Your task to perform on an android device: See recent photos Image 0: 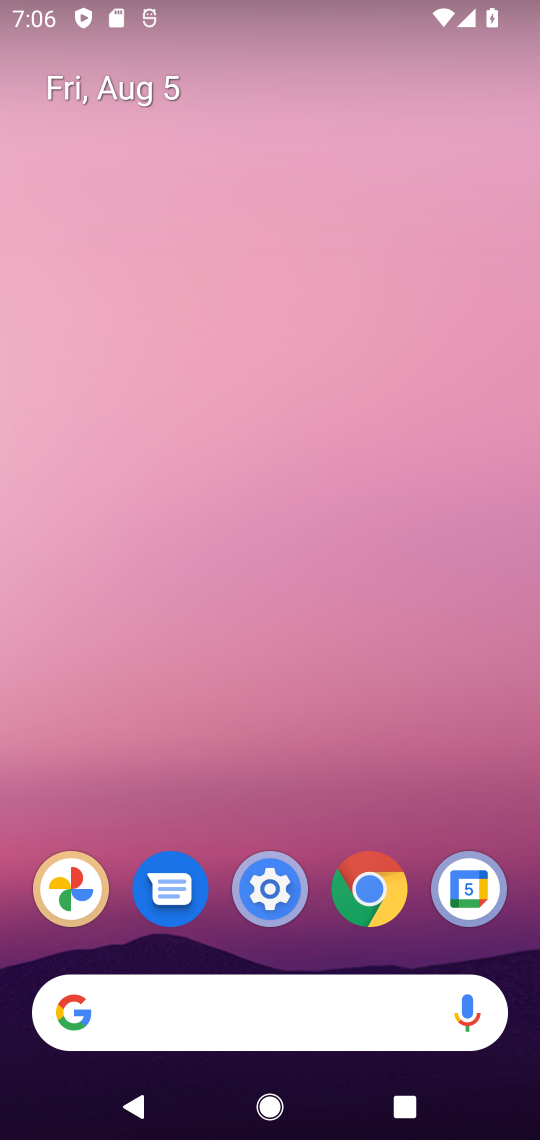
Step 0: click (70, 892)
Your task to perform on an android device: See recent photos Image 1: 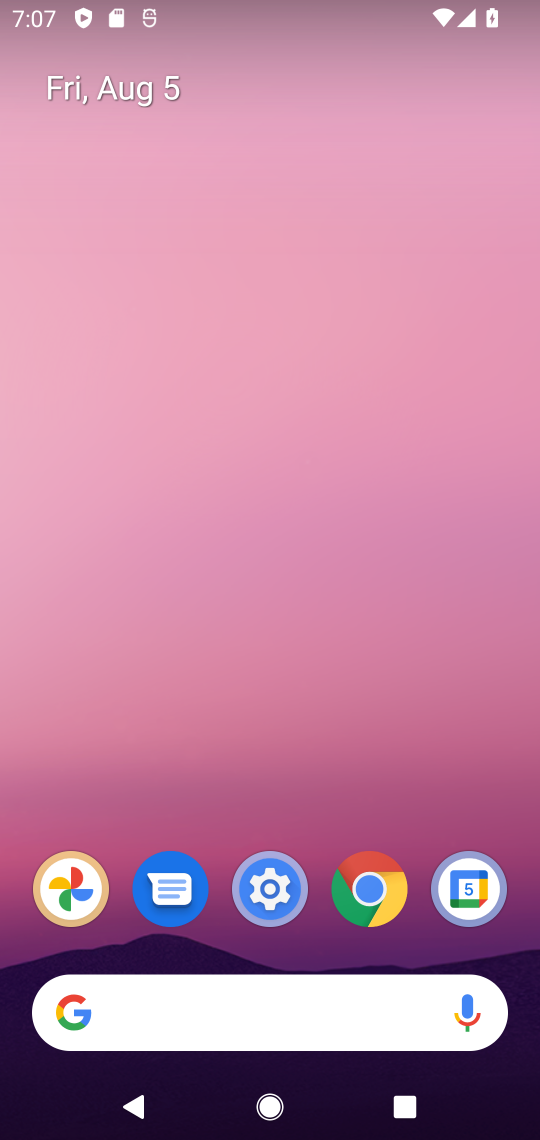
Step 1: drag from (213, 992) to (128, 394)
Your task to perform on an android device: See recent photos Image 2: 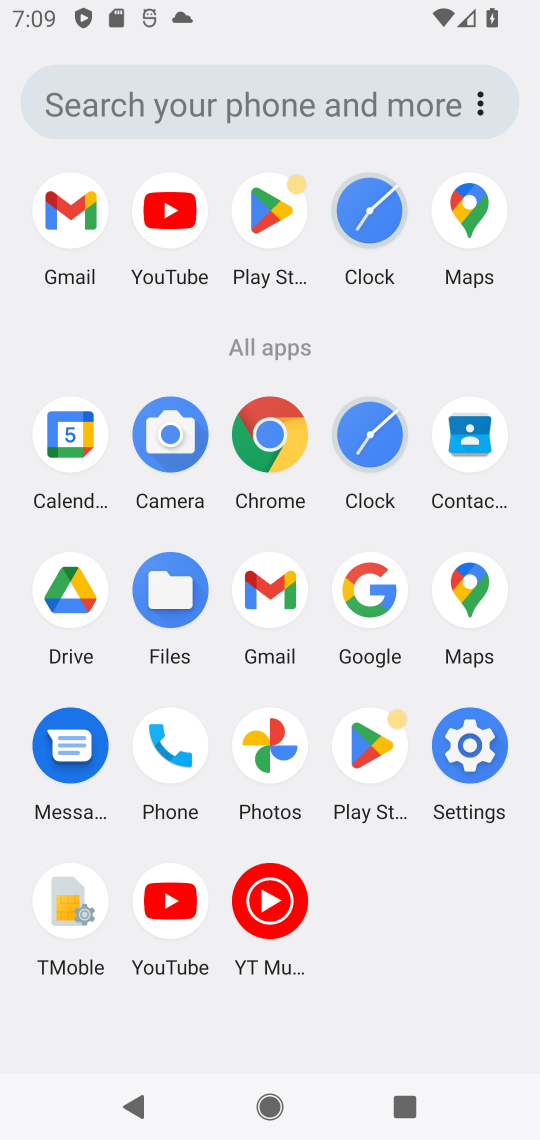
Step 2: click (257, 740)
Your task to perform on an android device: See recent photos Image 3: 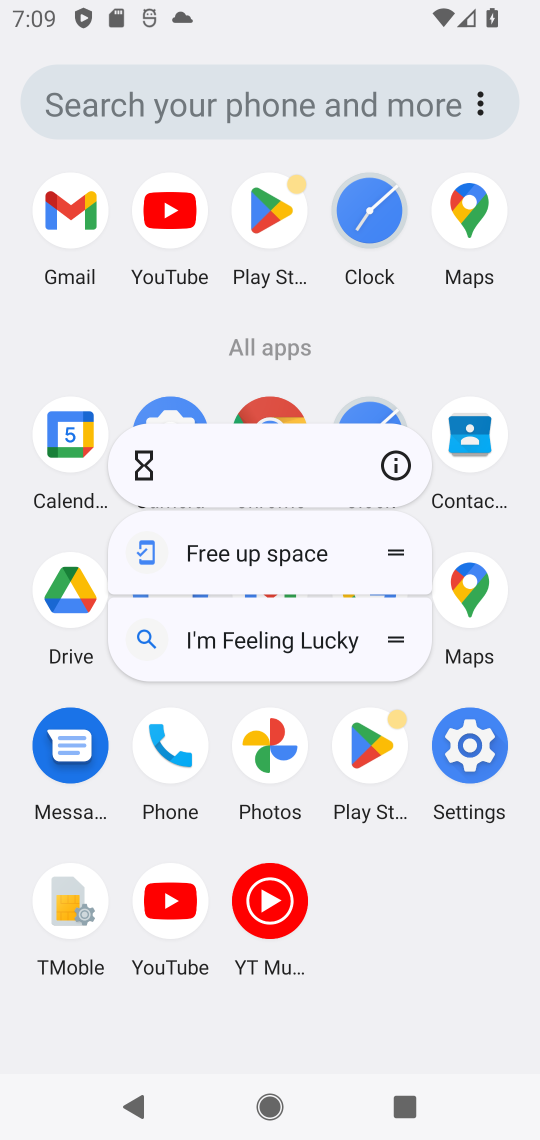
Step 3: click (267, 750)
Your task to perform on an android device: See recent photos Image 4: 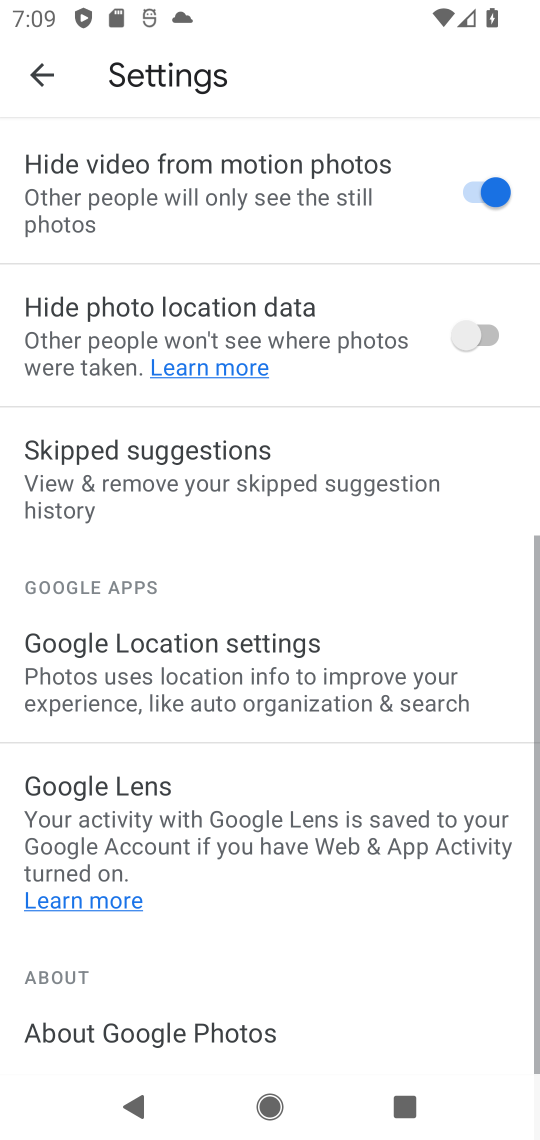
Step 4: click (267, 750)
Your task to perform on an android device: See recent photos Image 5: 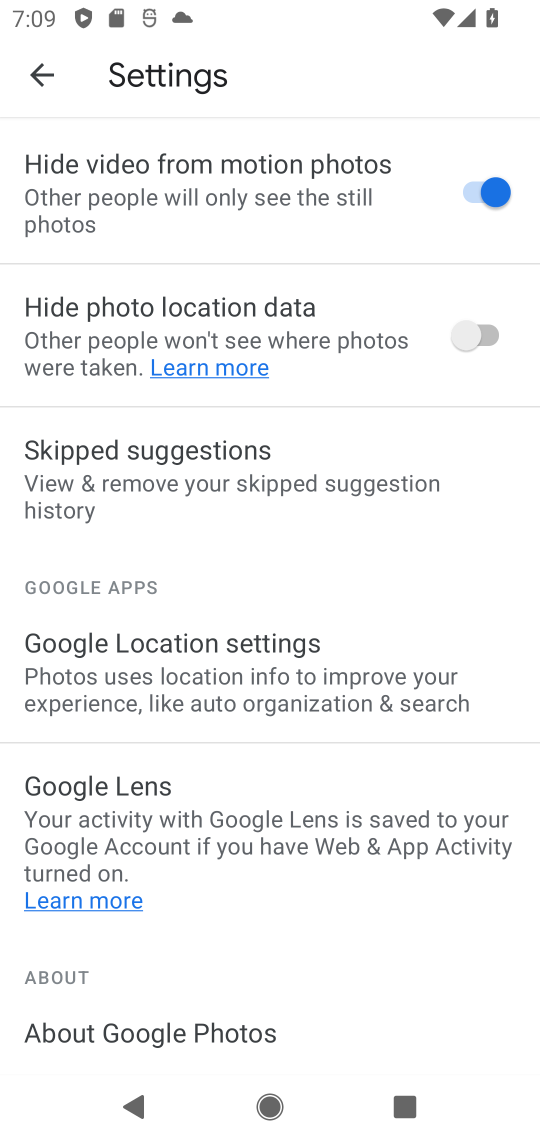
Step 5: click (52, 71)
Your task to perform on an android device: See recent photos Image 6: 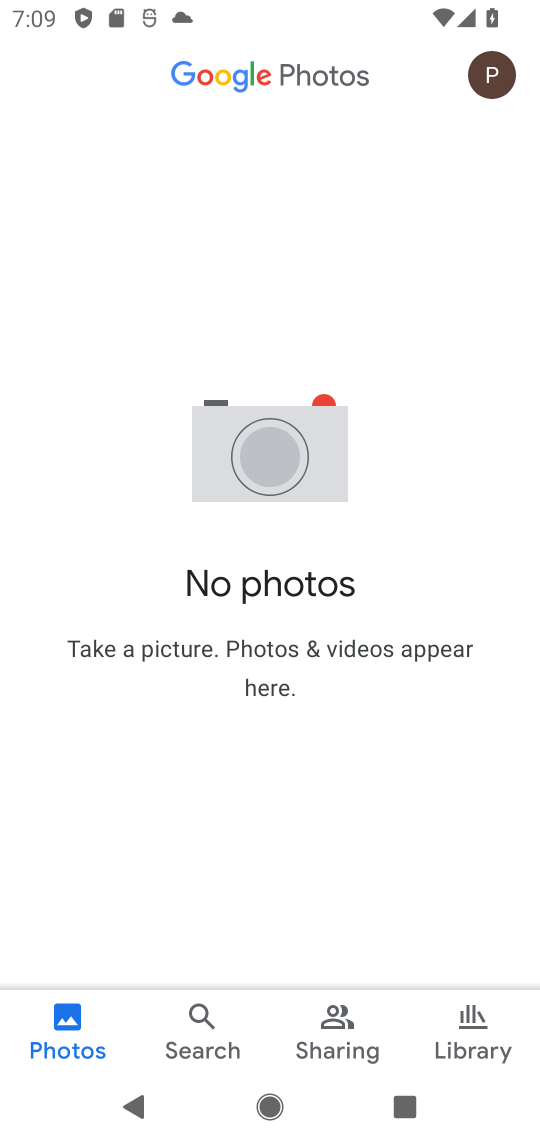
Step 6: task complete